Your task to perform on an android device: Find coffee shops on Maps Image 0: 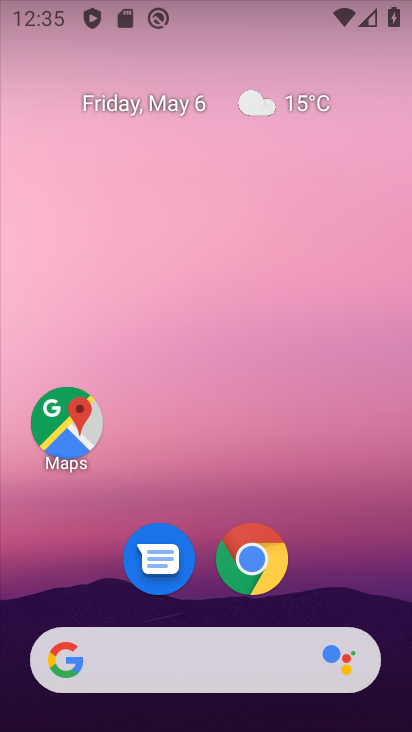
Step 0: click (64, 420)
Your task to perform on an android device: Find coffee shops on Maps Image 1: 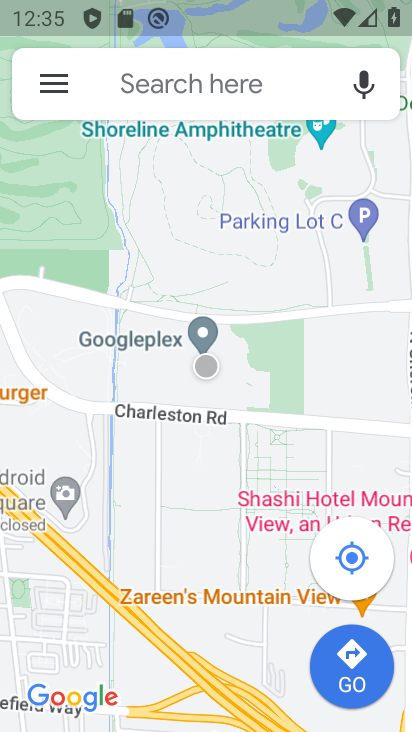
Step 1: click (217, 78)
Your task to perform on an android device: Find coffee shops on Maps Image 2: 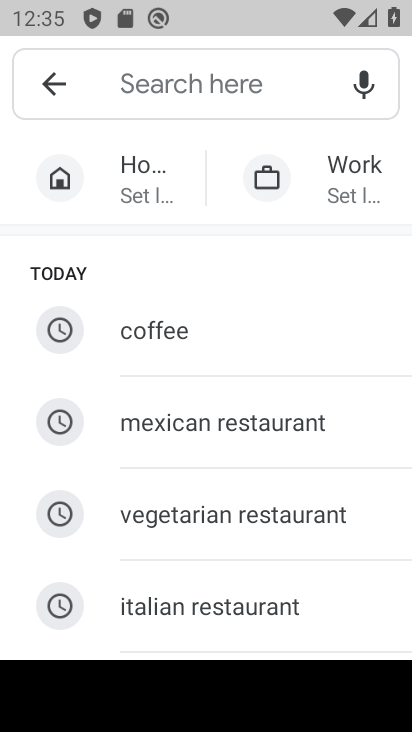
Step 2: click (201, 347)
Your task to perform on an android device: Find coffee shops on Maps Image 3: 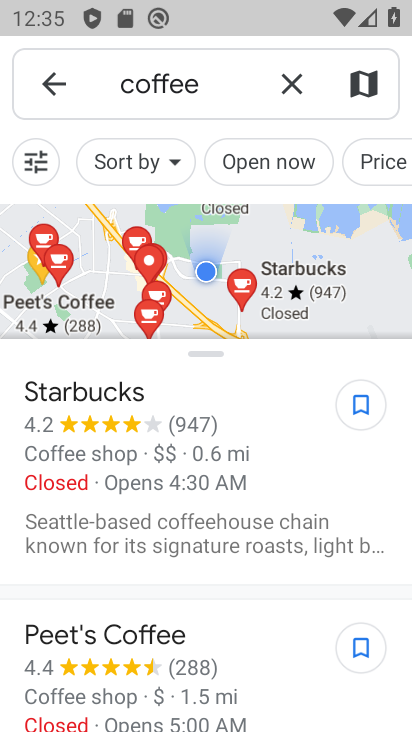
Step 3: task complete